Your task to perform on an android device: Is it going to rain this weekend? Image 0: 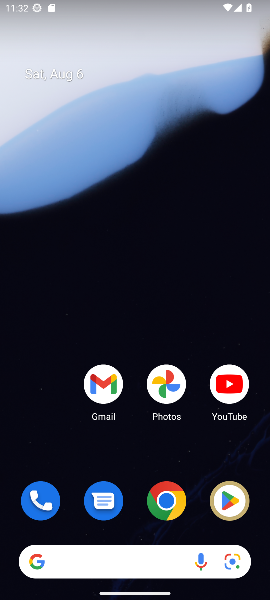
Step 0: click (115, 557)
Your task to perform on an android device: Is it going to rain this weekend? Image 1: 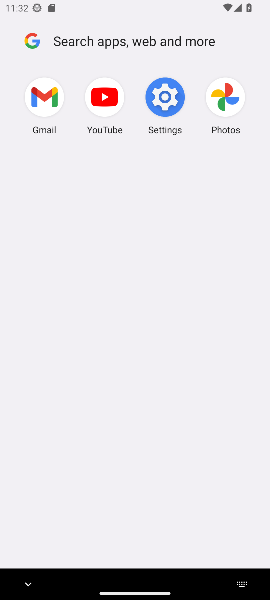
Step 1: click (85, 39)
Your task to perform on an android device: Is it going to rain this weekend? Image 2: 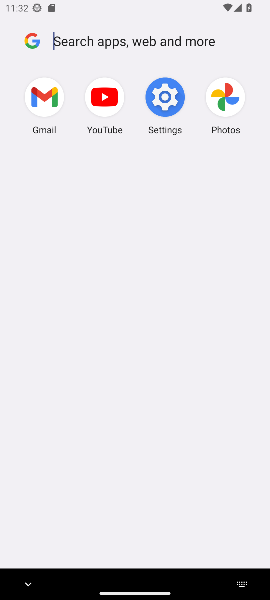
Step 2: press back button
Your task to perform on an android device: Is it going to rain this weekend? Image 3: 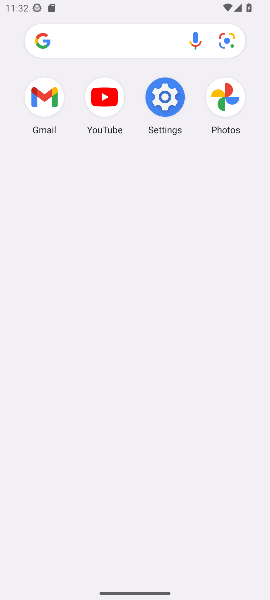
Step 3: press back button
Your task to perform on an android device: Is it going to rain this weekend? Image 4: 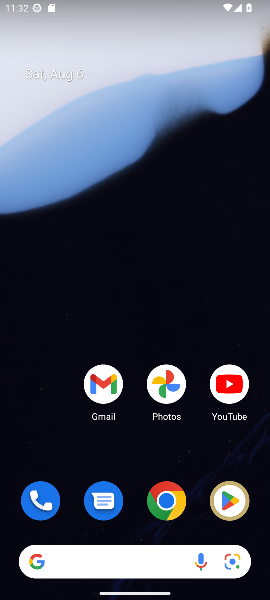
Step 4: drag from (134, 455) to (143, 57)
Your task to perform on an android device: Is it going to rain this weekend? Image 5: 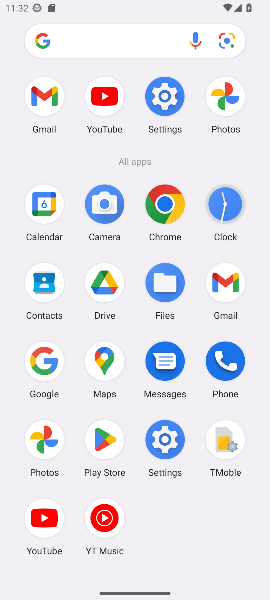
Step 5: click (37, 395)
Your task to perform on an android device: Is it going to rain this weekend? Image 6: 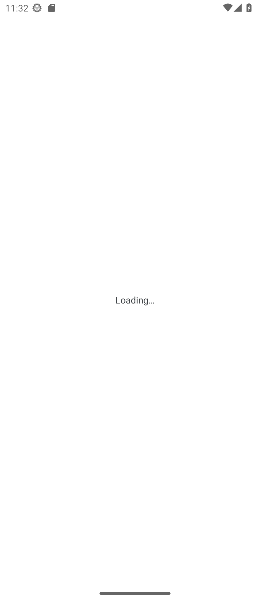
Step 6: task complete